Your task to perform on an android device: change alarm snooze length Image 0: 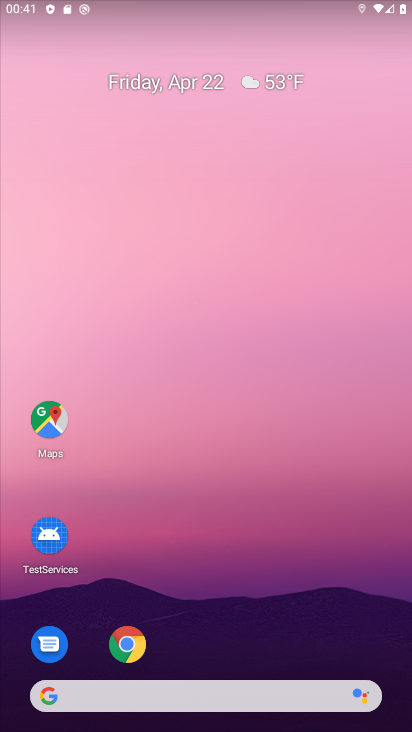
Step 0: drag from (231, 489) to (245, 173)
Your task to perform on an android device: change alarm snooze length Image 1: 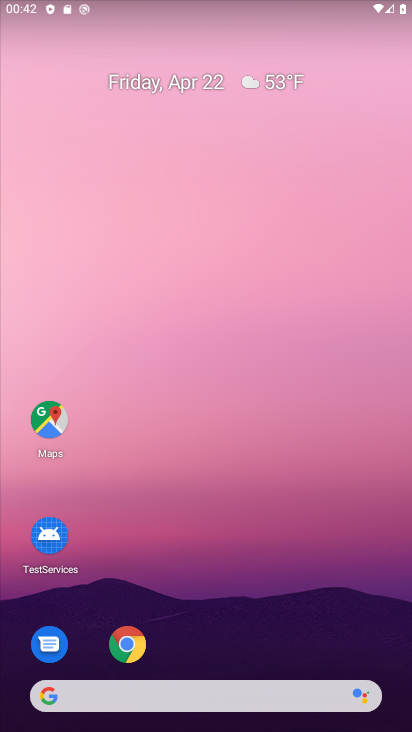
Step 1: drag from (260, 596) to (228, 26)
Your task to perform on an android device: change alarm snooze length Image 2: 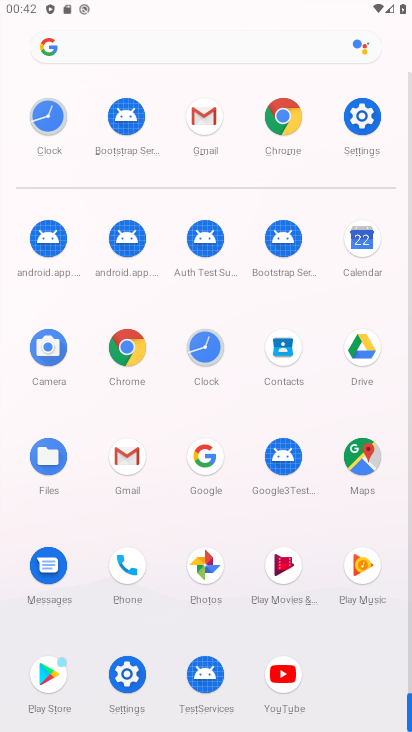
Step 2: click (210, 344)
Your task to perform on an android device: change alarm snooze length Image 3: 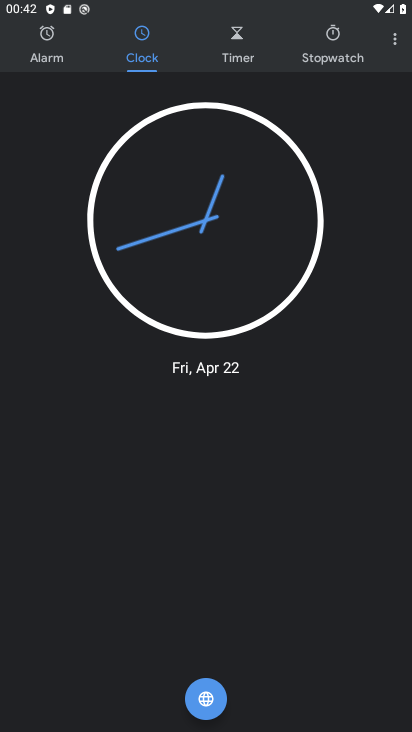
Step 3: click (397, 36)
Your task to perform on an android device: change alarm snooze length Image 4: 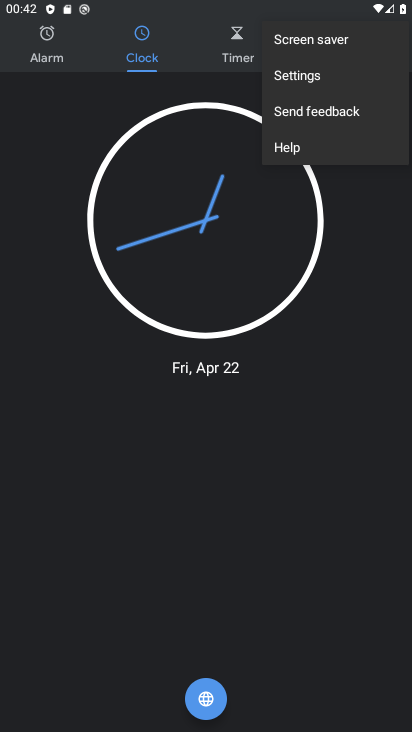
Step 4: click (315, 77)
Your task to perform on an android device: change alarm snooze length Image 5: 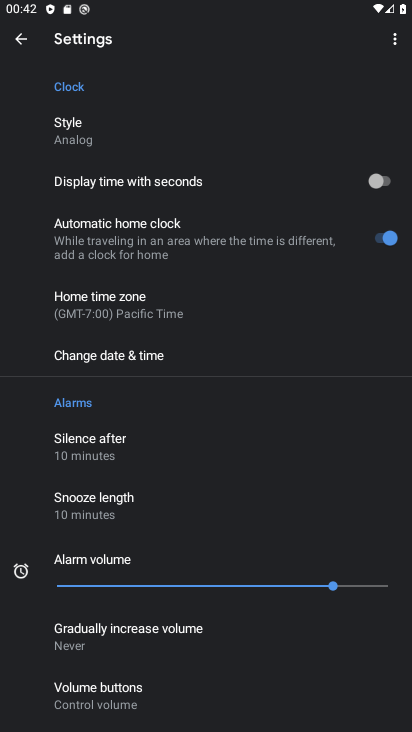
Step 5: click (140, 508)
Your task to perform on an android device: change alarm snooze length Image 6: 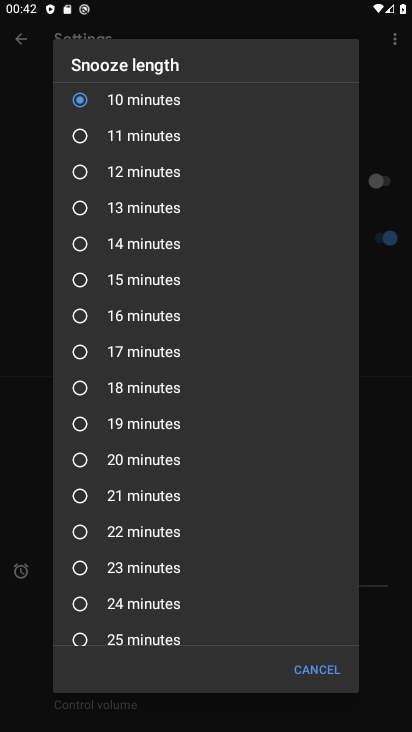
Step 6: click (158, 145)
Your task to perform on an android device: change alarm snooze length Image 7: 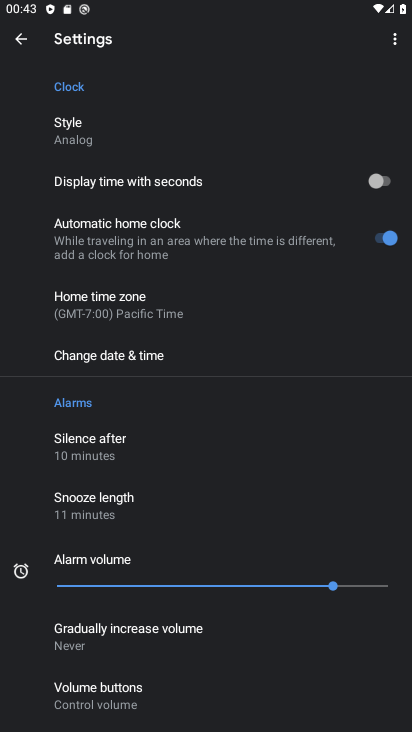
Step 7: task complete